Your task to perform on an android device: stop showing notifications on the lock screen Image 0: 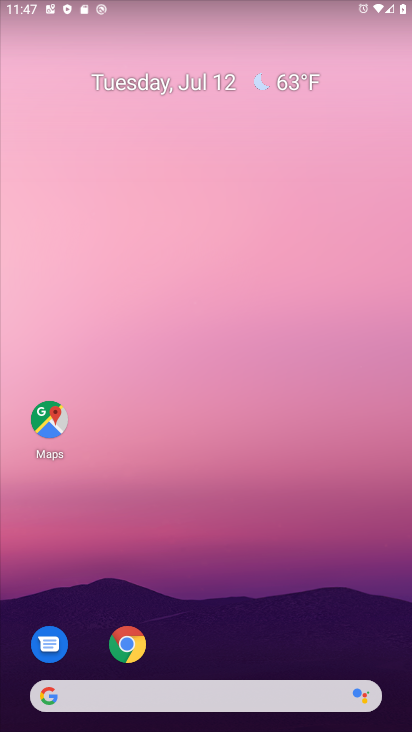
Step 0: drag from (212, 699) to (182, 145)
Your task to perform on an android device: stop showing notifications on the lock screen Image 1: 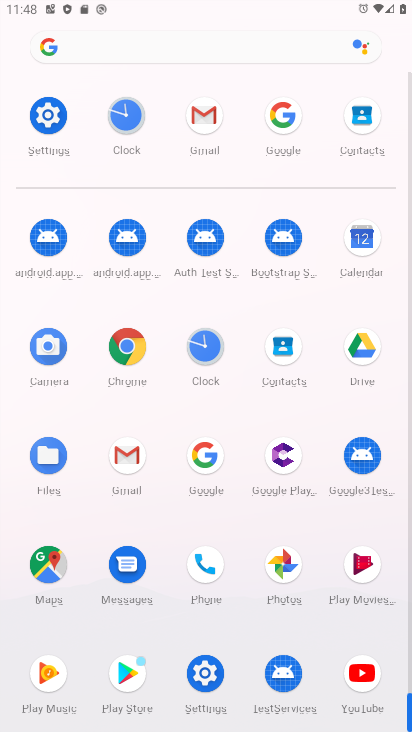
Step 1: click (205, 673)
Your task to perform on an android device: stop showing notifications on the lock screen Image 2: 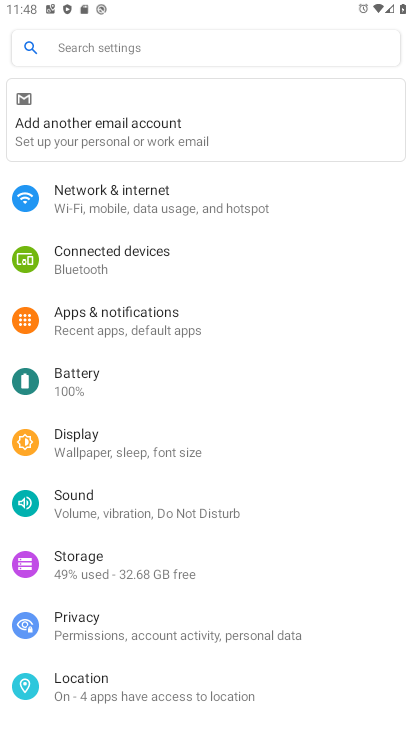
Step 2: click (128, 315)
Your task to perform on an android device: stop showing notifications on the lock screen Image 3: 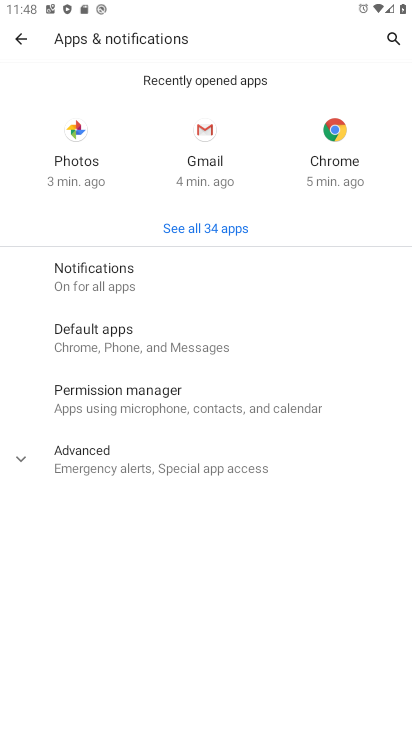
Step 3: click (113, 291)
Your task to perform on an android device: stop showing notifications on the lock screen Image 4: 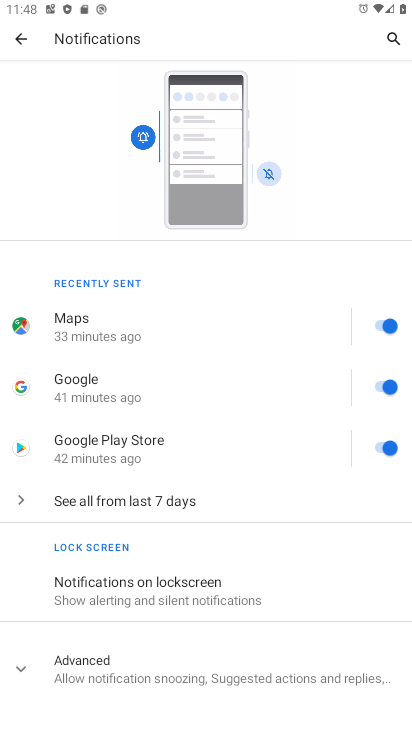
Step 4: click (151, 602)
Your task to perform on an android device: stop showing notifications on the lock screen Image 5: 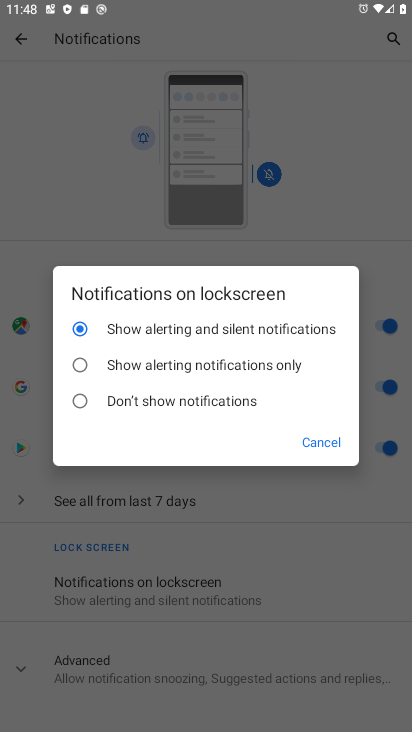
Step 5: click (78, 403)
Your task to perform on an android device: stop showing notifications on the lock screen Image 6: 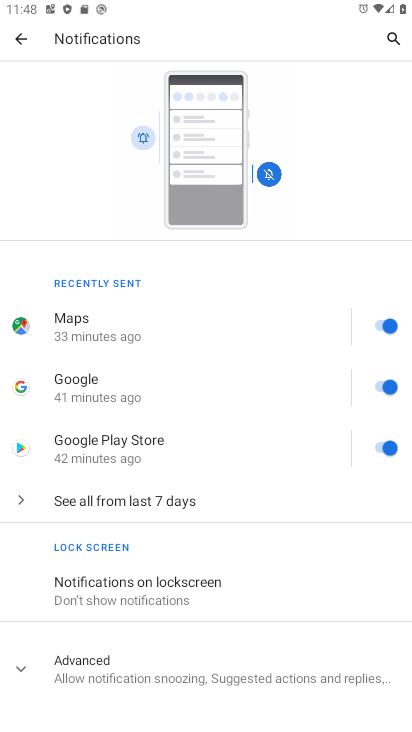
Step 6: task complete